Your task to perform on an android device: set default search engine in the chrome app Image 0: 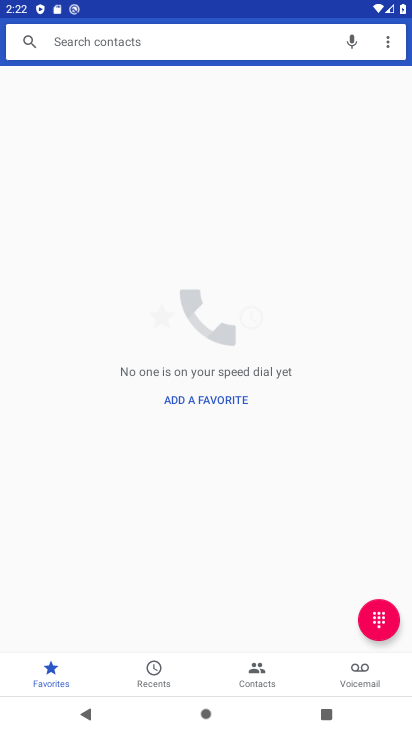
Step 0: drag from (222, 562) to (271, 346)
Your task to perform on an android device: set default search engine in the chrome app Image 1: 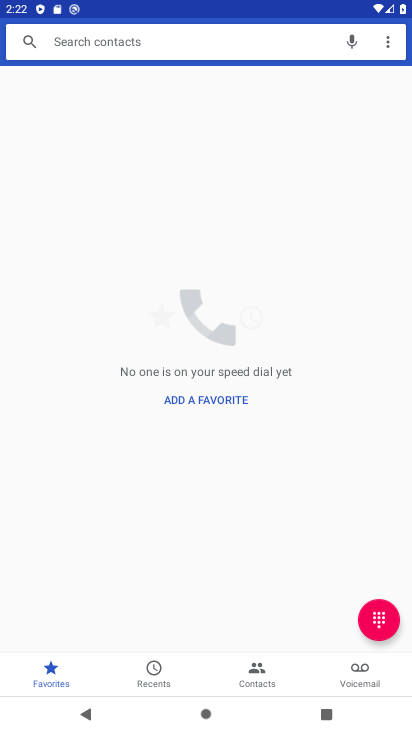
Step 1: press home button
Your task to perform on an android device: set default search engine in the chrome app Image 2: 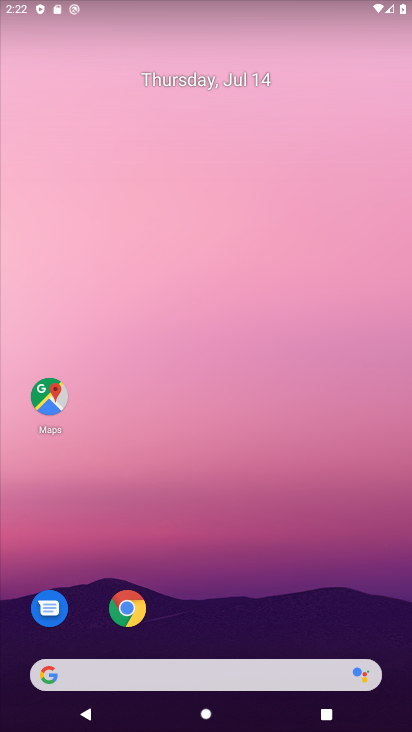
Step 2: drag from (226, 501) to (296, 311)
Your task to perform on an android device: set default search engine in the chrome app Image 3: 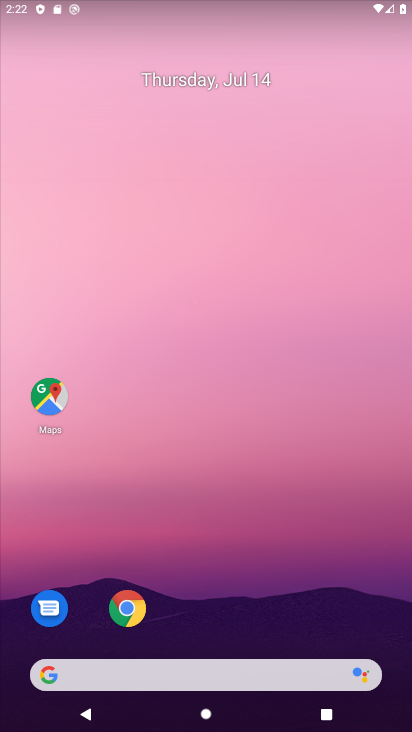
Step 3: drag from (209, 591) to (282, 212)
Your task to perform on an android device: set default search engine in the chrome app Image 4: 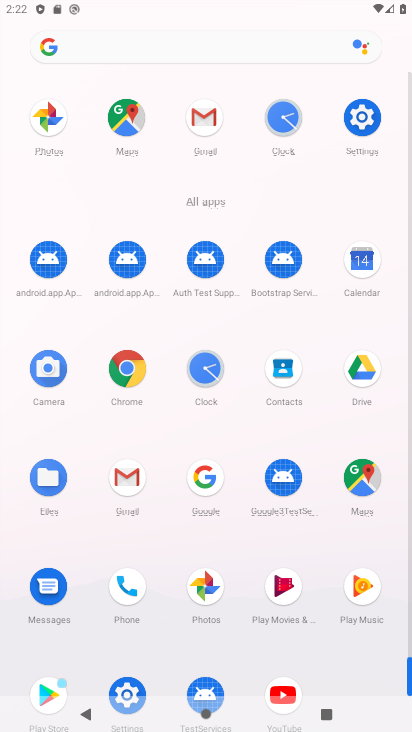
Step 4: click (120, 368)
Your task to perform on an android device: set default search engine in the chrome app Image 5: 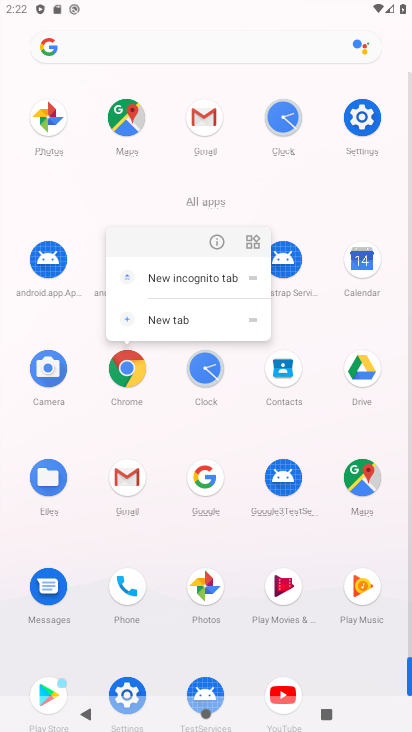
Step 5: click (219, 239)
Your task to perform on an android device: set default search engine in the chrome app Image 6: 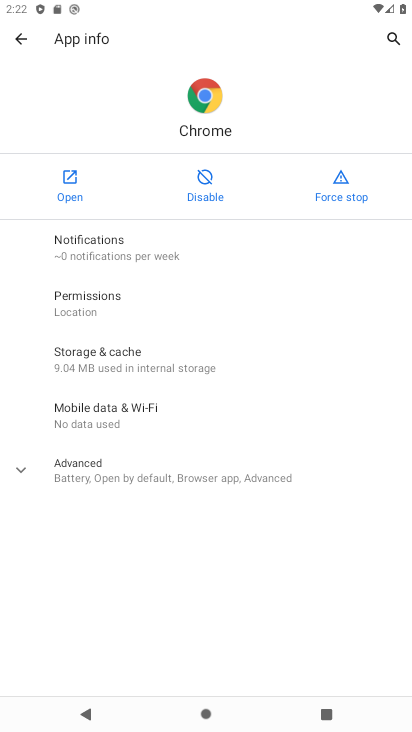
Step 6: click (69, 175)
Your task to perform on an android device: set default search engine in the chrome app Image 7: 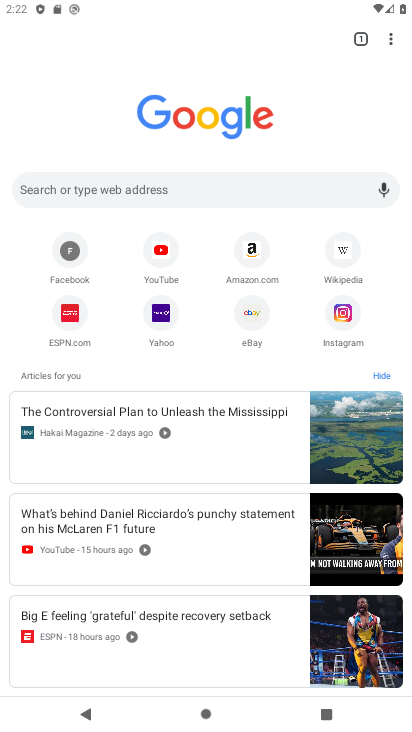
Step 7: click (389, 33)
Your task to perform on an android device: set default search engine in the chrome app Image 8: 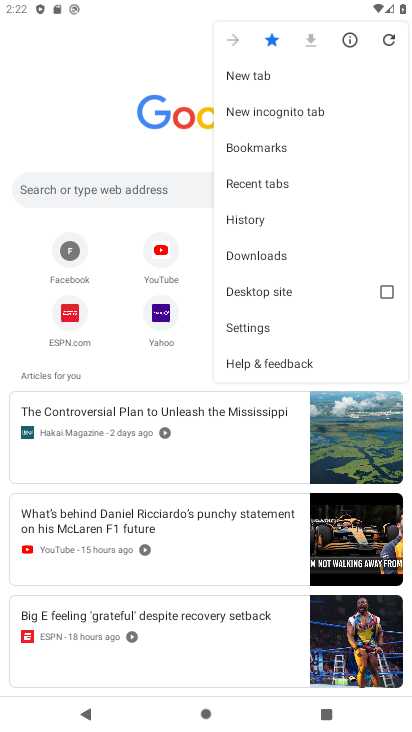
Step 8: click (261, 325)
Your task to perform on an android device: set default search engine in the chrome app Image 9: 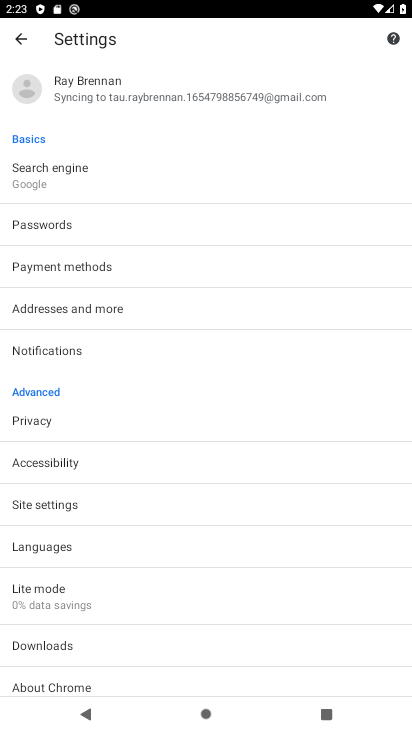
Step 9: click (72, 496)
Your task to perform on an android device: set default search engine in the chrome app Image 10: 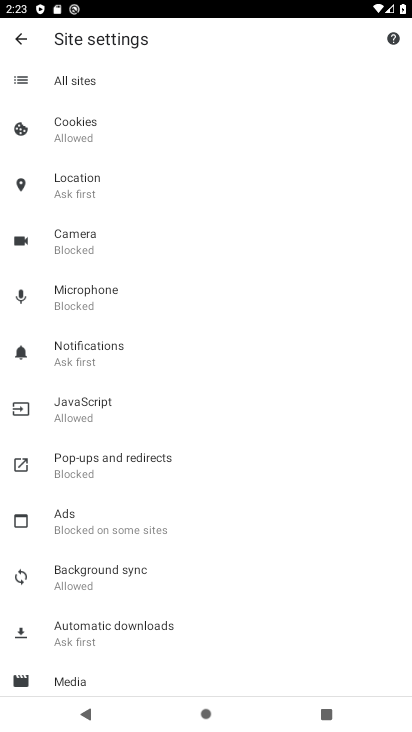
Step 10: click (12, 35)
Your task to perform on an android device: set default search engine in the chrome app Image 11: 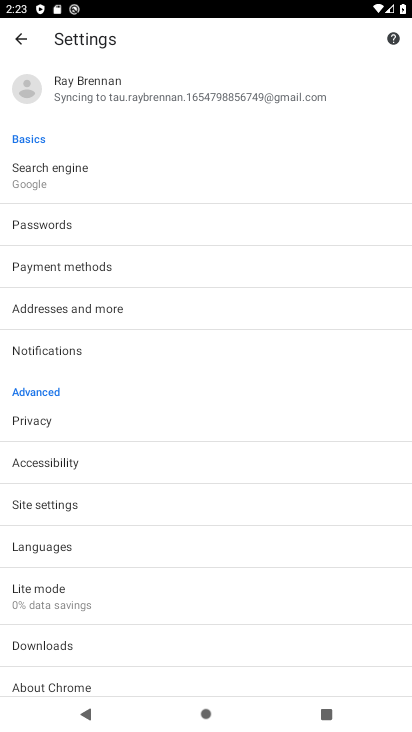
Step 11: drag from (191, 515) to (211, 241)
Your task to perform on an android device: set default search engine in the chrome app Image 12: 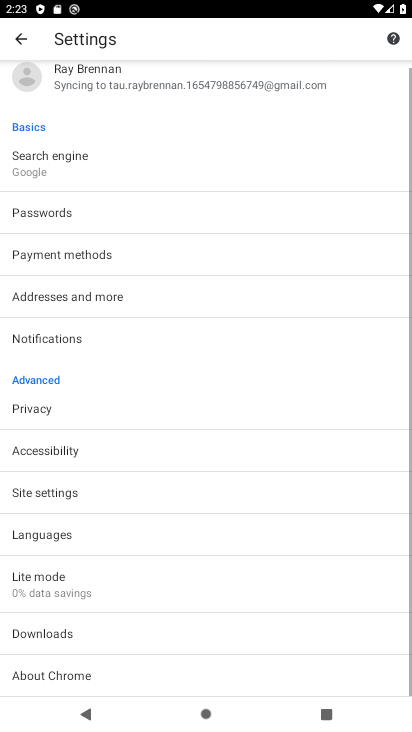
Step 12: click (81, 185)
Your task to perform on an android device: set default search engine in the chrome app Image 13: 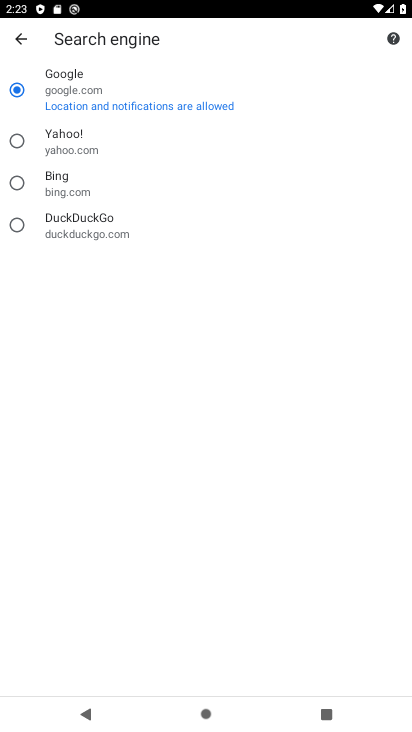
Step 13: task complete